Your task to perform on an android device: make emails show in primary in the gmail app Image 0: 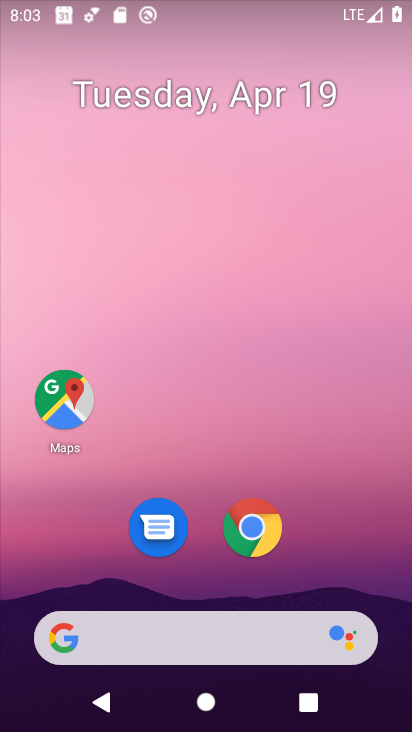
Step 0: drag from (348, 563) to (337, 153)
Your task to perform on an android device: make emails show in primary in the gmail app Image 1: 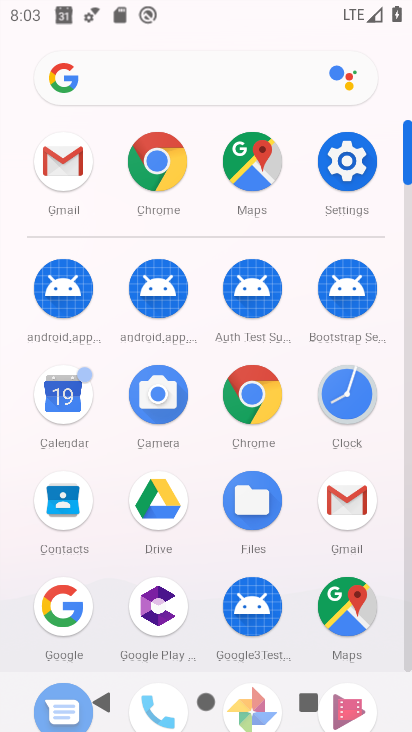
Step 1: click (56, 172)
Your task to perform on an android device: make emails show in primary in the gmail app Image 2: 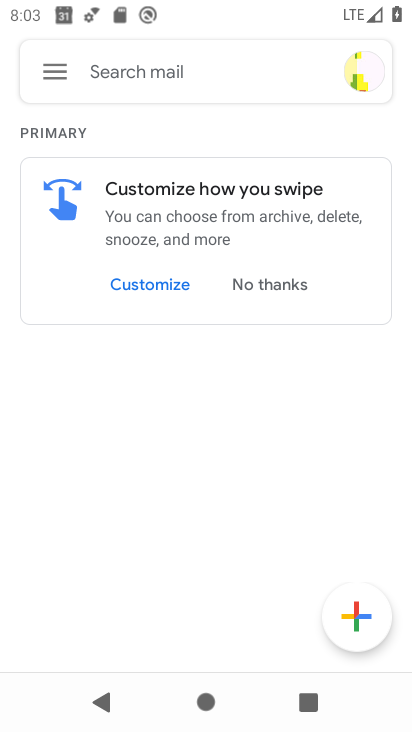
Step 2: click (59, 83)
Your task to perform on an android device: make emails show in primary in the gmail app Image 3: 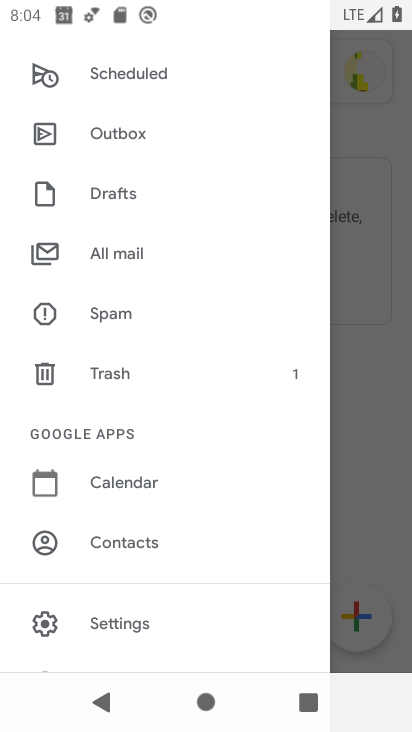
Step 3: drag from (196, 106) to (163, 605)
Your task to perform on an android device: make emails show in primary in the gmail app Image 4: 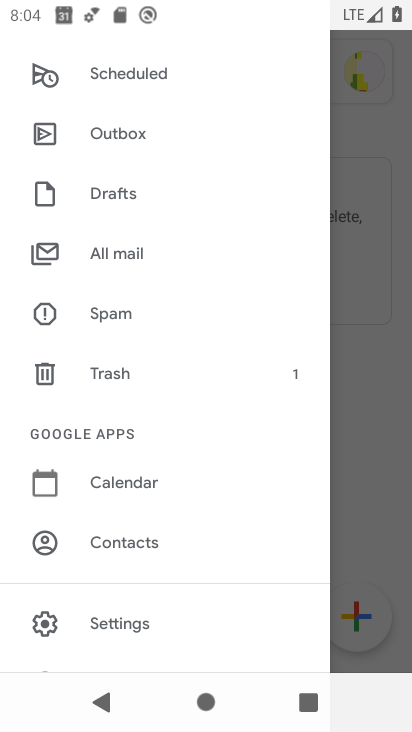
Step 4: drag from (195, 515) to (195, 572)
Your task to perform on an android device: make emails show in primary in the gmail app Image 5: 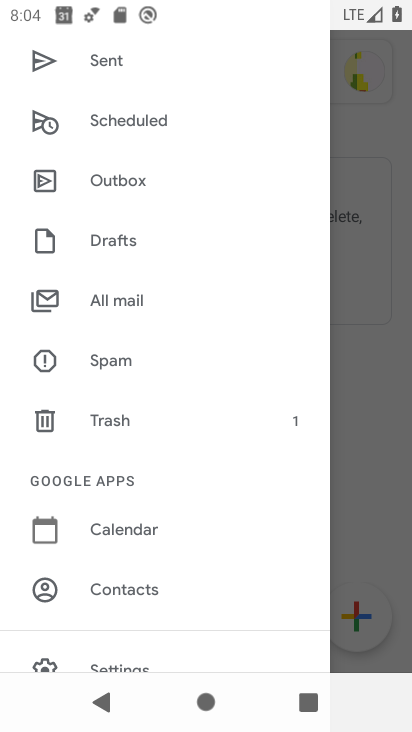
Step 5: drag from (205, 269) to (204, 589)
Your task to perform on an android device: make emails show in primary in the gmail app Image 6: 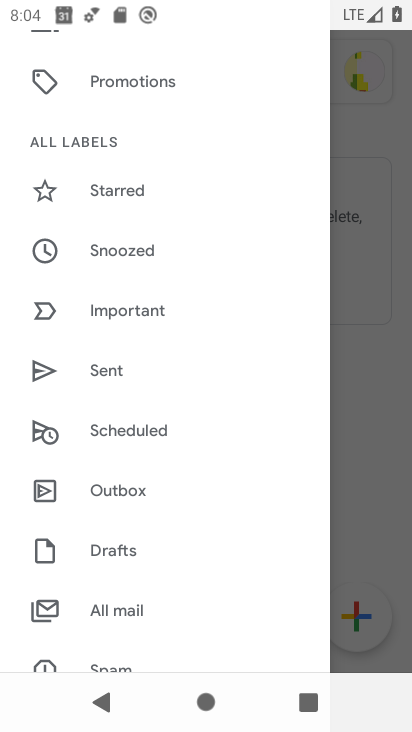
Step 6: drag from (180, 382) to (205, 636)
Your task to perform on an android device: make emails show in primary in the gmail app Image 7: 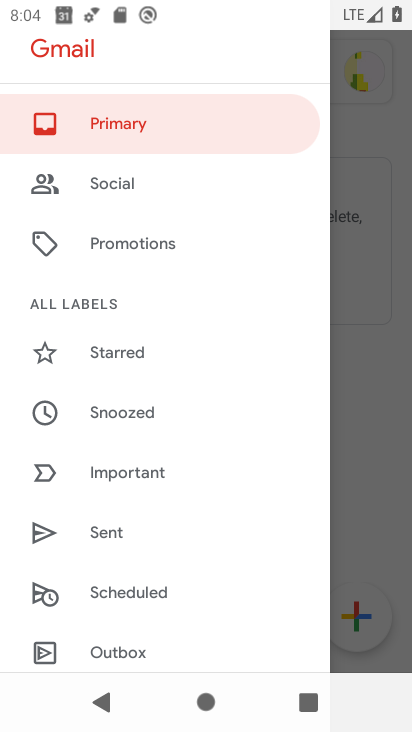
Step 7: click (177, 126)
Your task to perform on an android device: make emails show in primary in the gmail app Image 8: 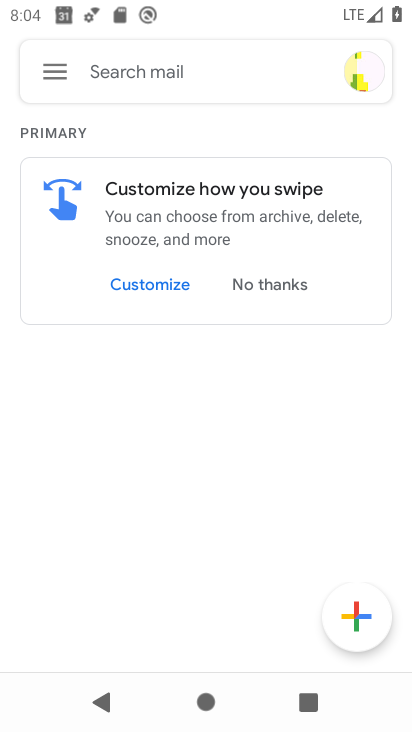
Step 8: task complete